Your task to perform on an android device: uninstall "Adobe Express: Graphic Design" Image 0: 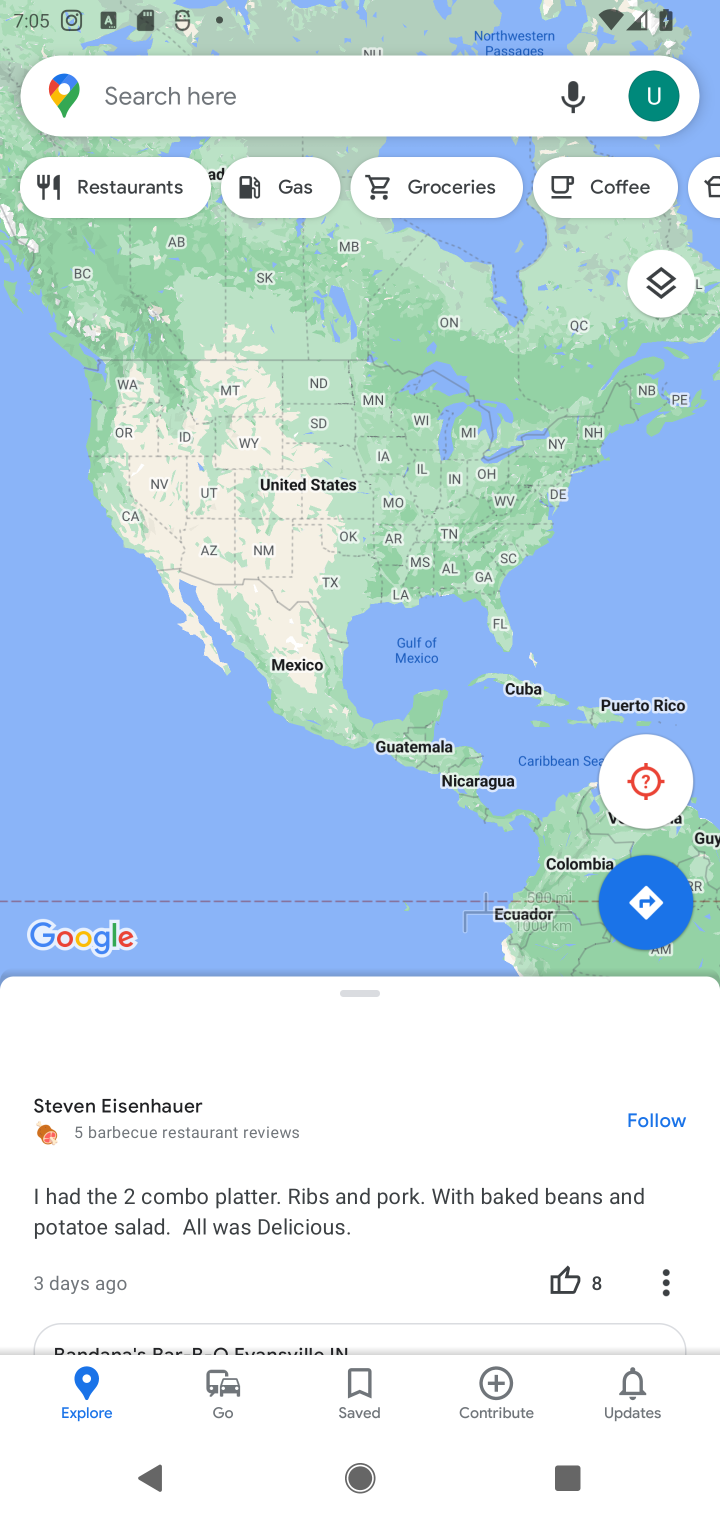
Step 0: press home button
Your task to perform on an android device: uninstall "Adobe Express: Graphic Design" Image 1: 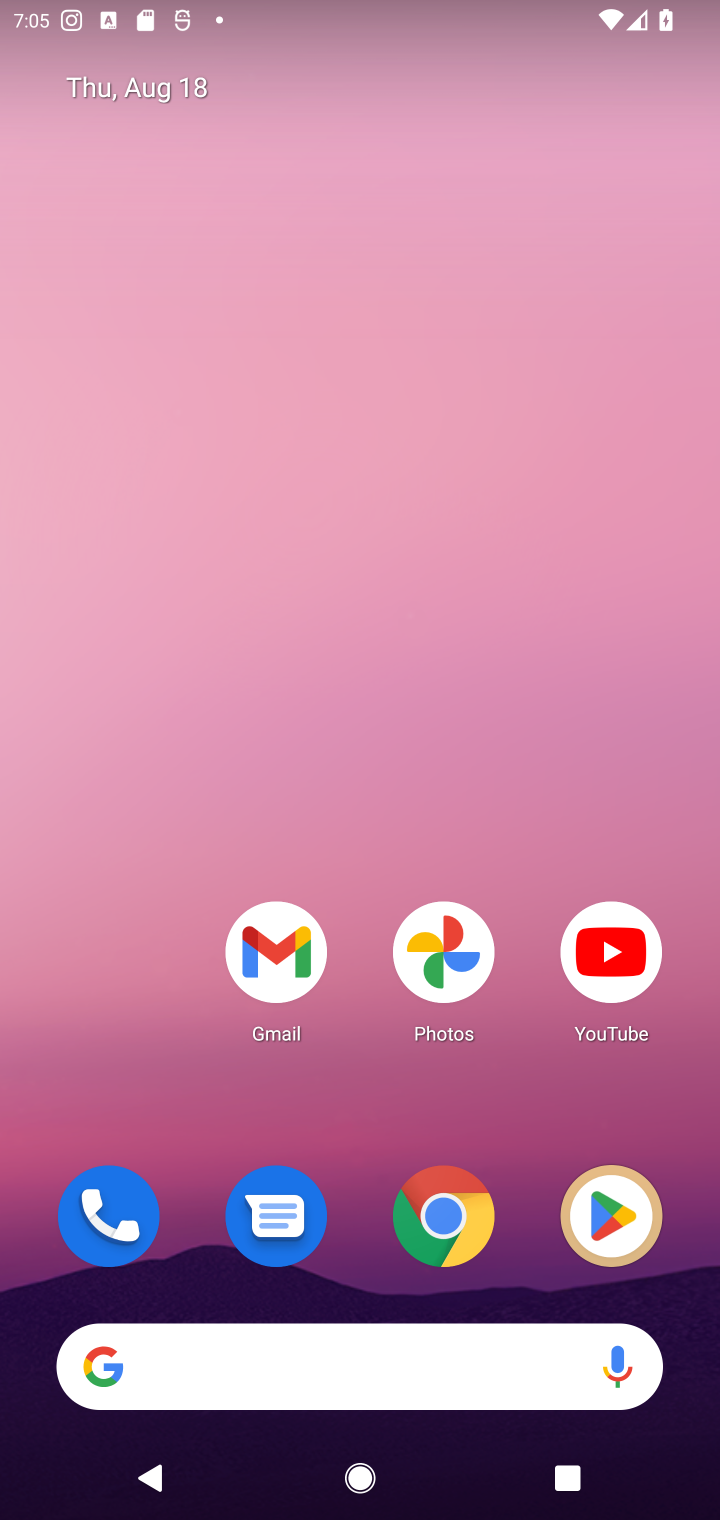
Step 1: click (598, 1220)
Your task to perform on an android device: uninstall "Adobe Express: Graphic Design" Image 2: 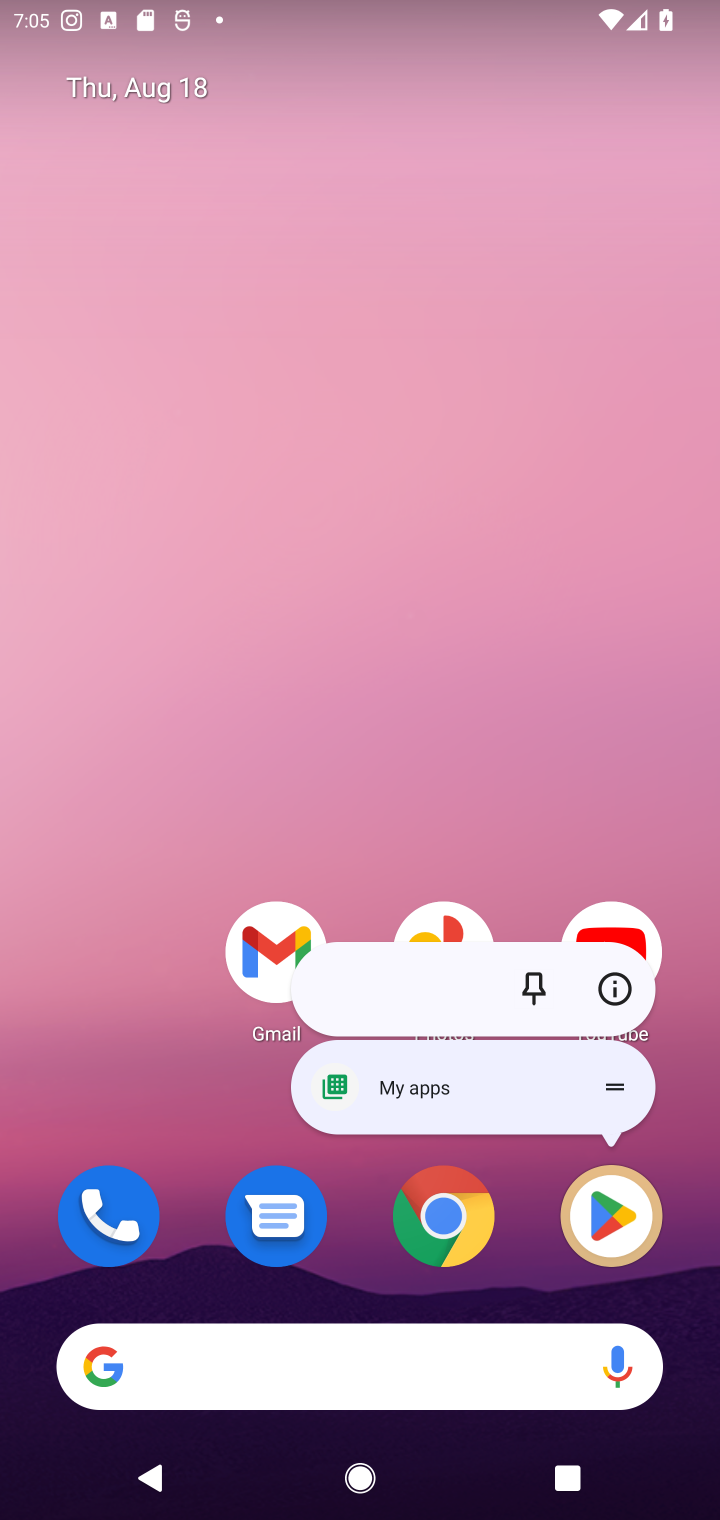
Step 2: click (595, 1213)
Your task to perform on an android device: uninstall "Adobe Express: Graphic Design" Image 3: 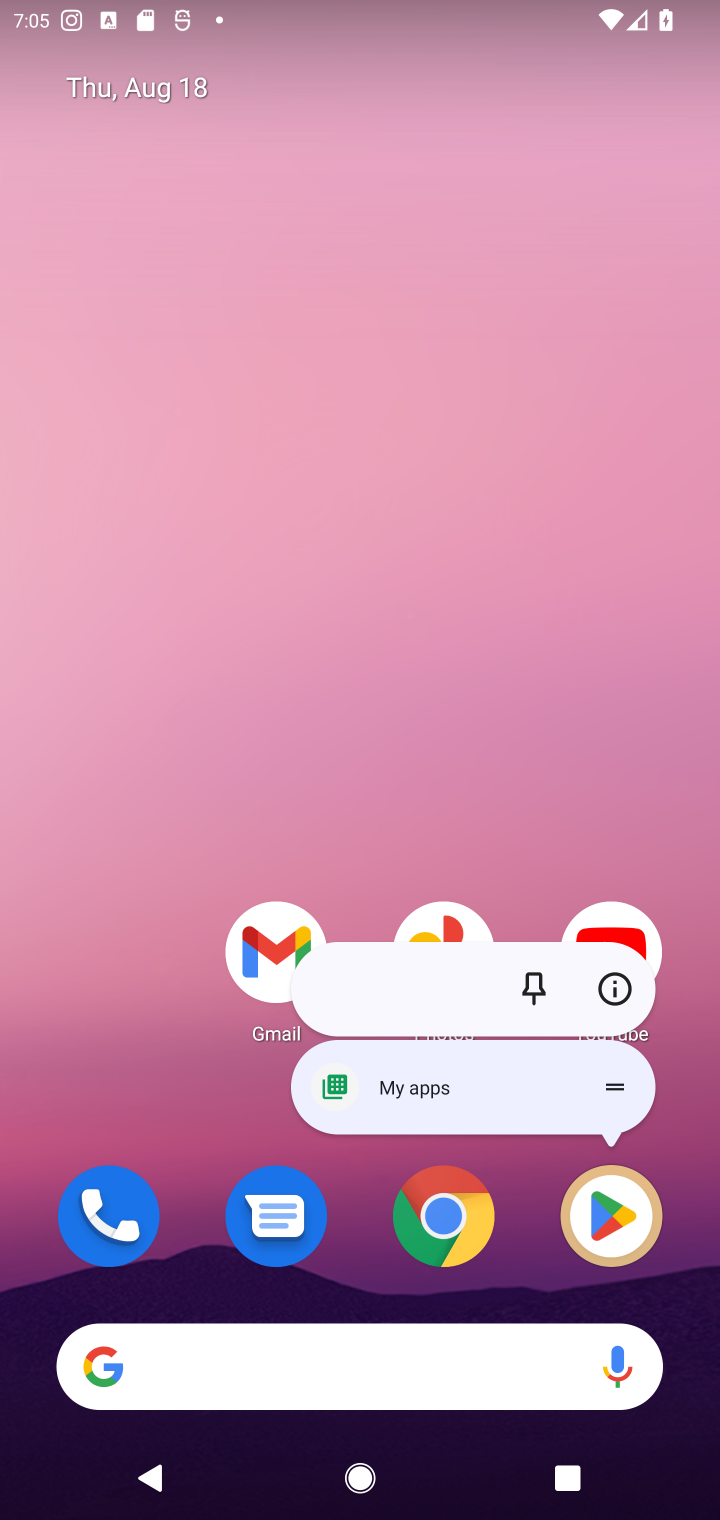
Step 3: click (612, 1192)
Your task to perform on an android device: uninstall "Adobe Express: Graphic Design" Image 4: 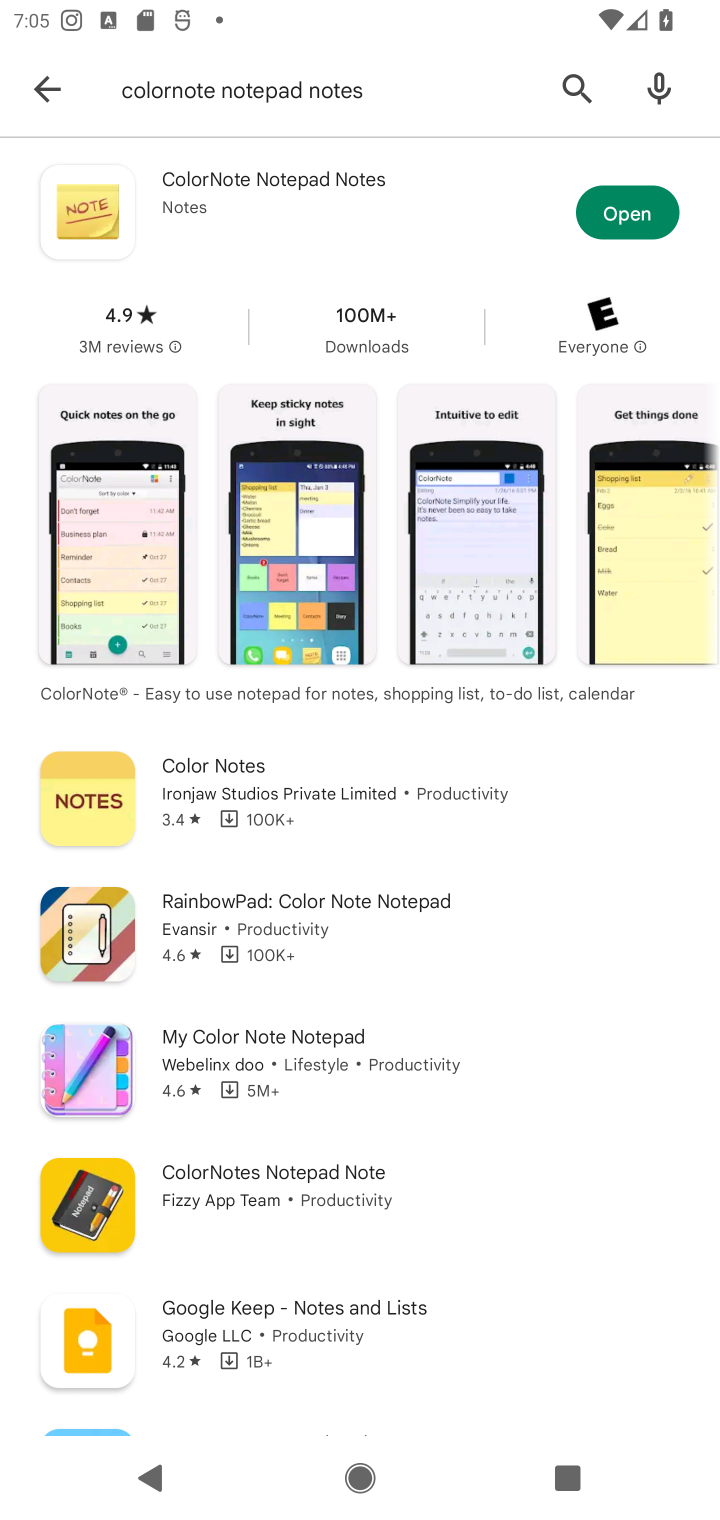
Step 4: click (567, 74)
Your task to perform on an android device: uninstall "Adobe Express: Graphic Design" Image 5: 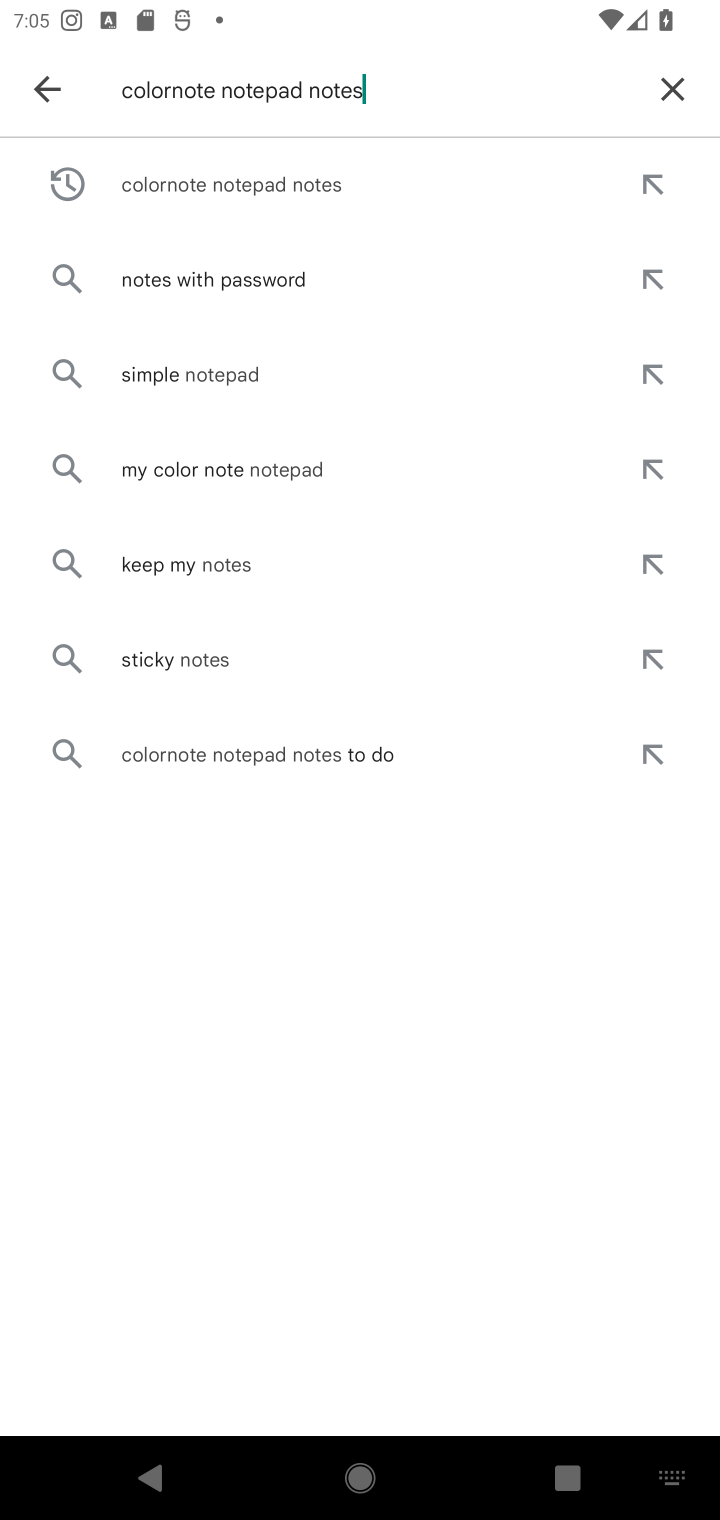
Step 5: click (663, 75)
Your task to perform on an android device: uninstall "Adobe Express: Graphic Design" Image 6: 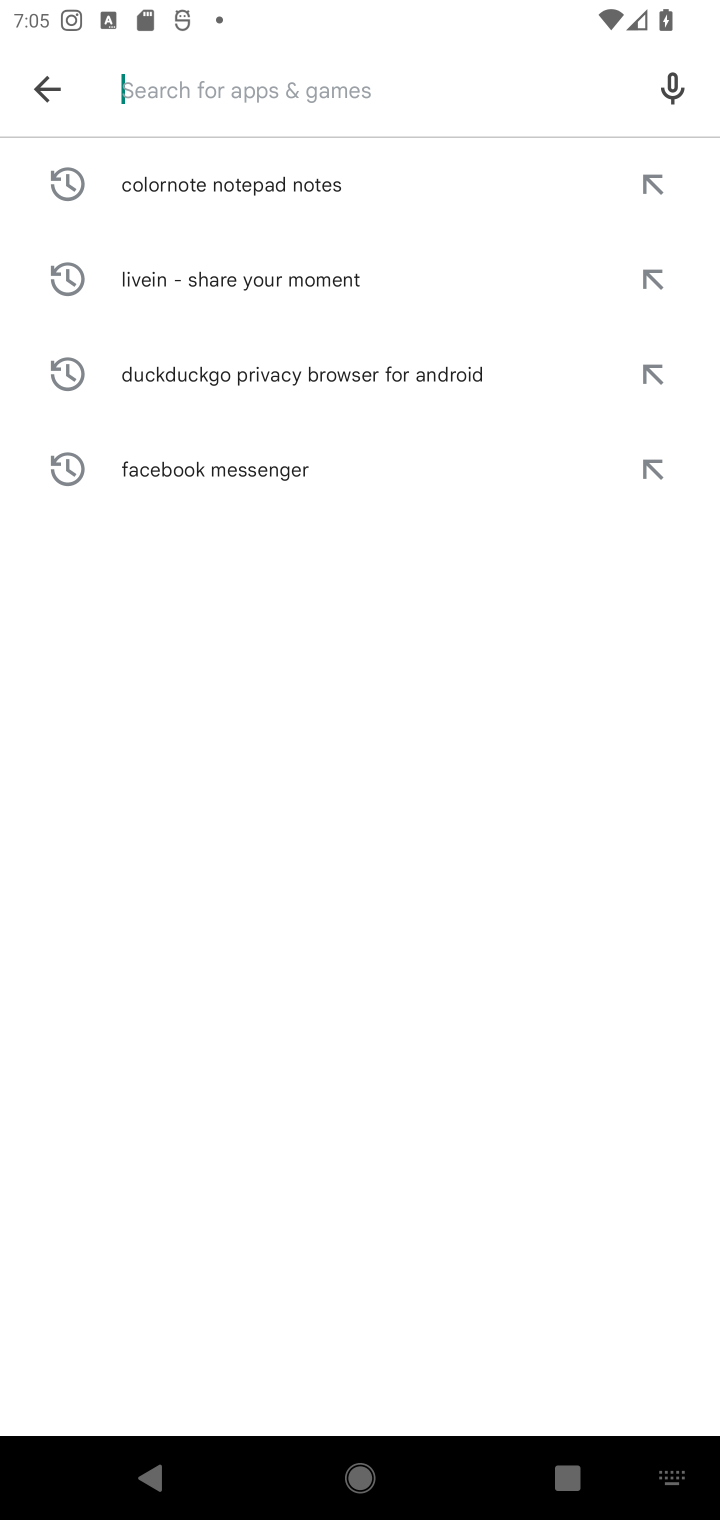
Step 6: type "Adobe Express: Graphic Design"
Your task to perform on an android device: uninstall "Adobe Express: Graphic Design" Image 7: 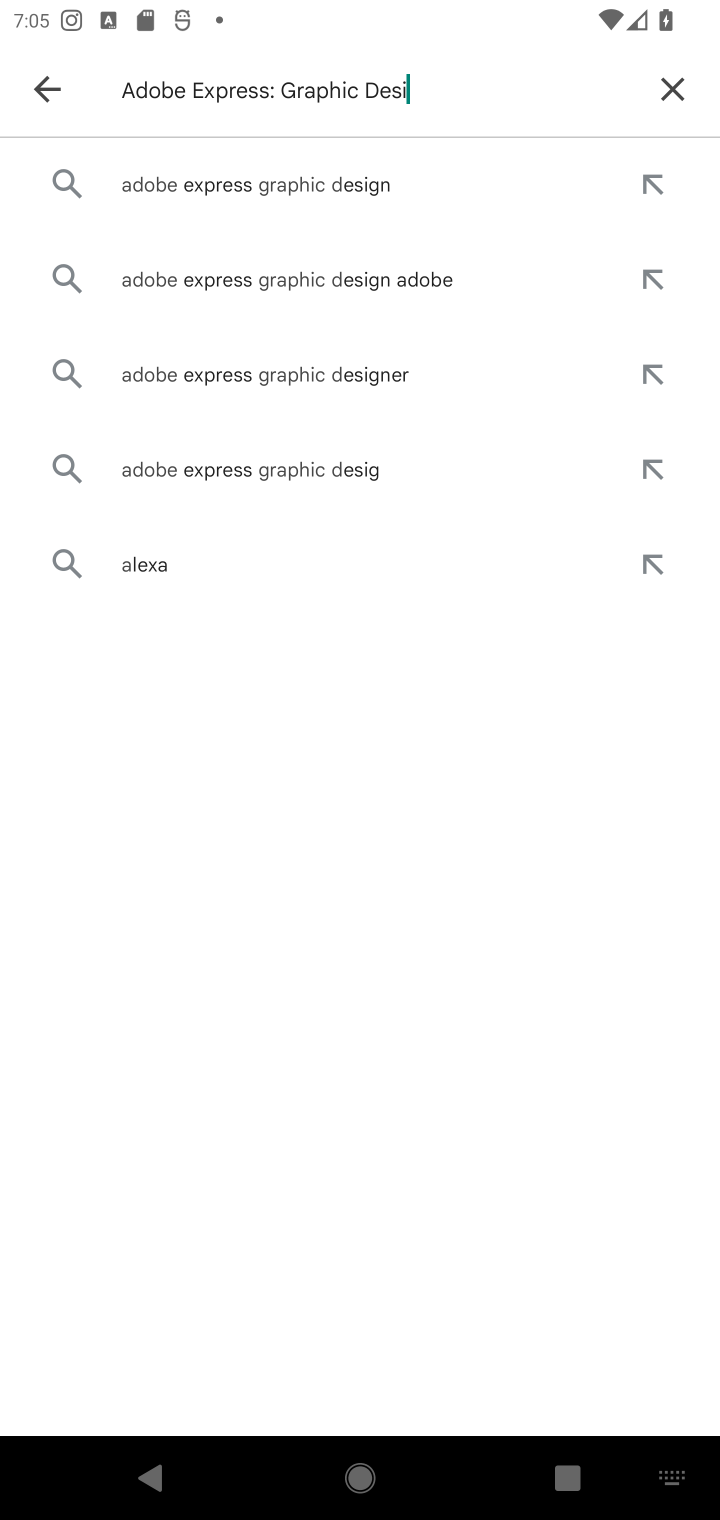
Step 7: type ""
Your task to perform on an android device: uninstall "Adobe Express: Graphic Design" Image 8: 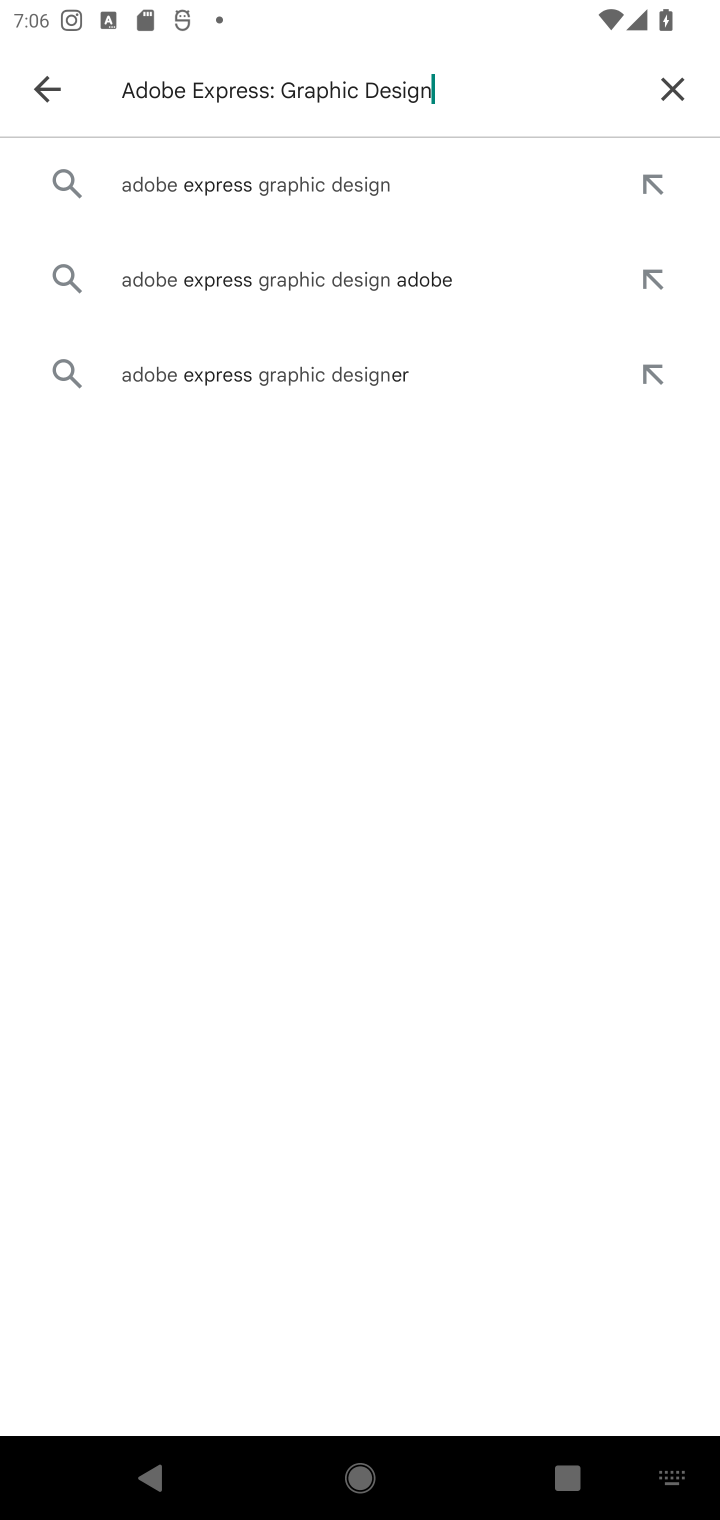
Step 8: click (253, 206)
Your task to perform on an android device: uninstall "Adobe Express: Graphic Design" Image 9: 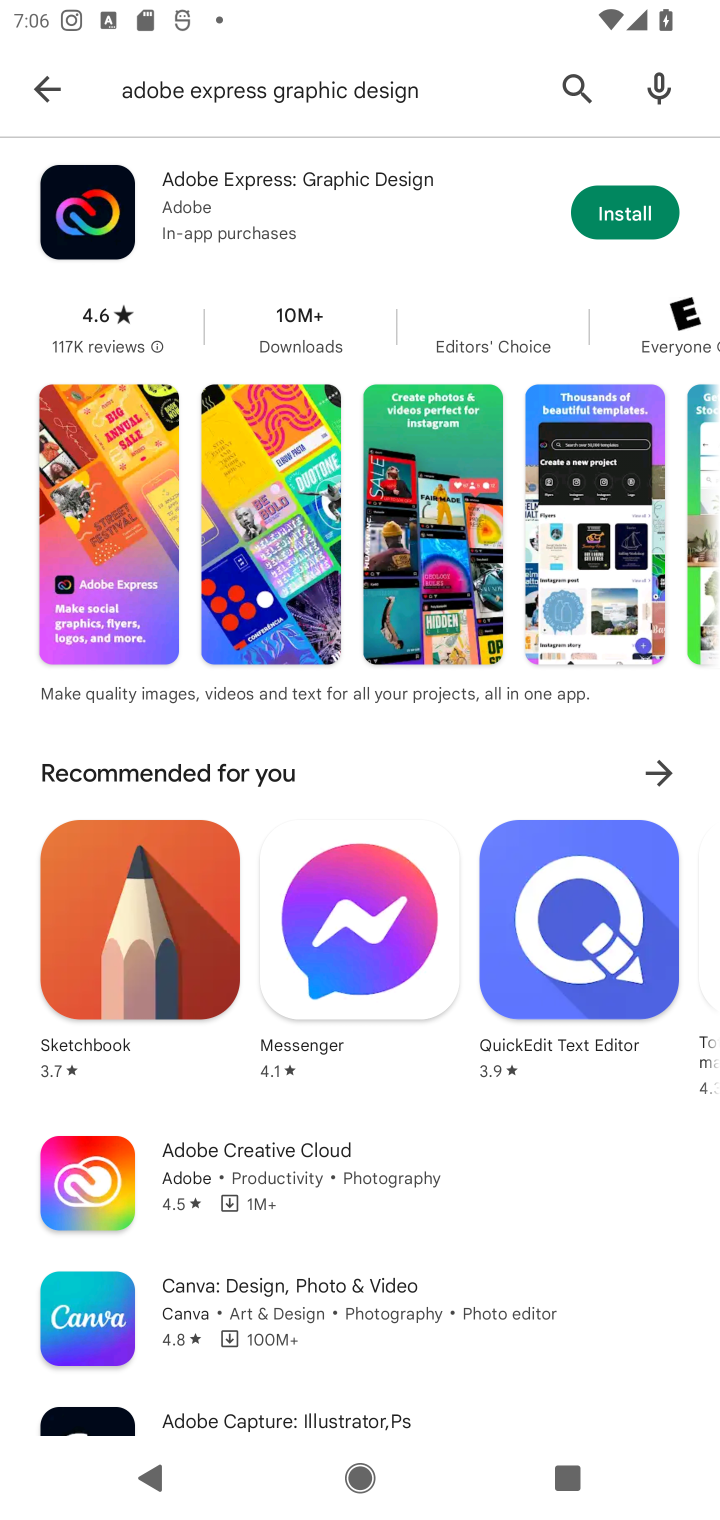
Step 9: task complete